Your task to perform on an android device: Go to Maps Image 0: 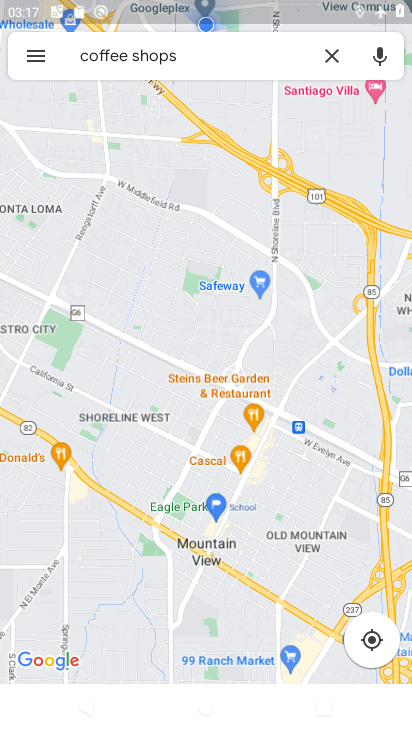
Step 0: click (362, 163)
Your task to perform on an android device: Go to Maps Image 1: 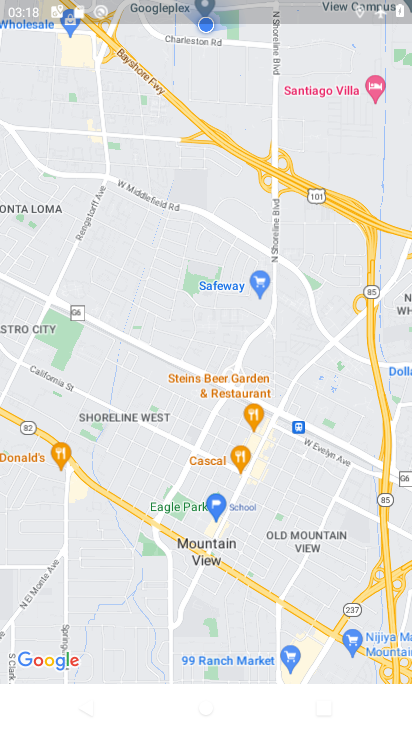
Step 1: press home button
Your task to perform on an android device: Go to Maps Image 2: 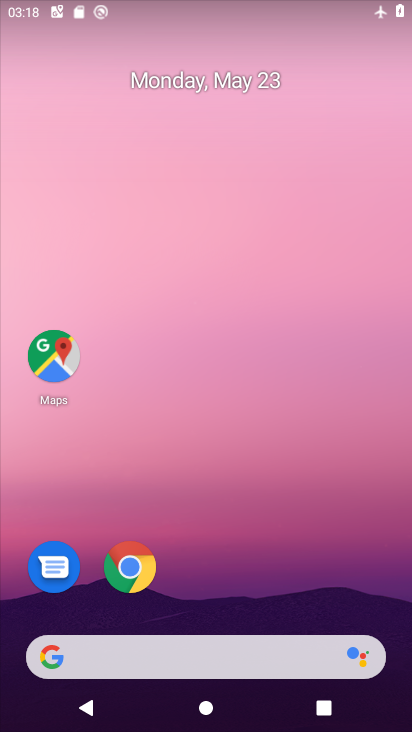
Step 2: click (50, 335)
Your task to perform on an android device: Go to Maps Image 3: 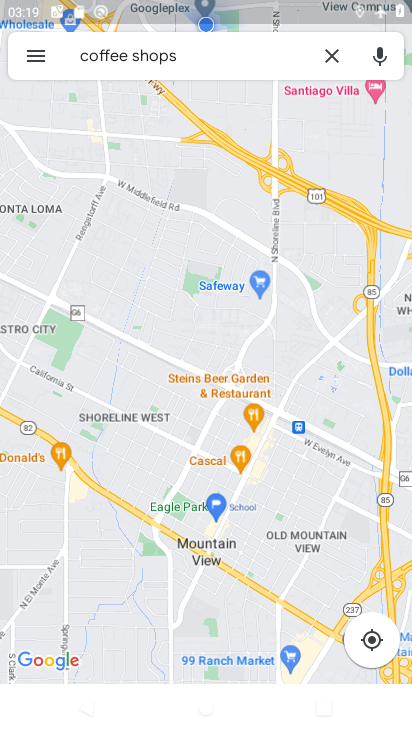
Step 3: task complete